Your task to perform on an android device: toggle sleep mode Image 0: 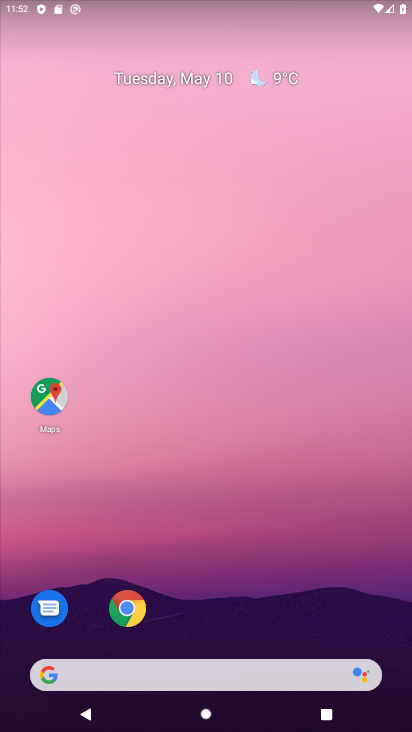
Step 0: drag from (292, 684) to (258, 291)
Your task to perform on an android device: toggle sleep mode Image 1: 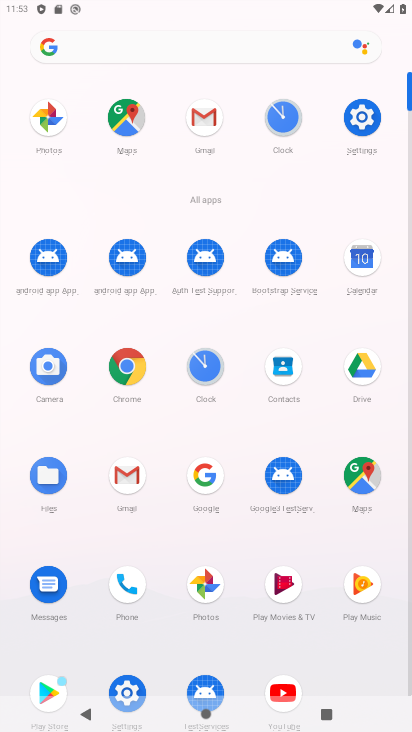
Step 1: click (361, 105)
Your task to perform on an android device: toggle sleep mode Image 2: 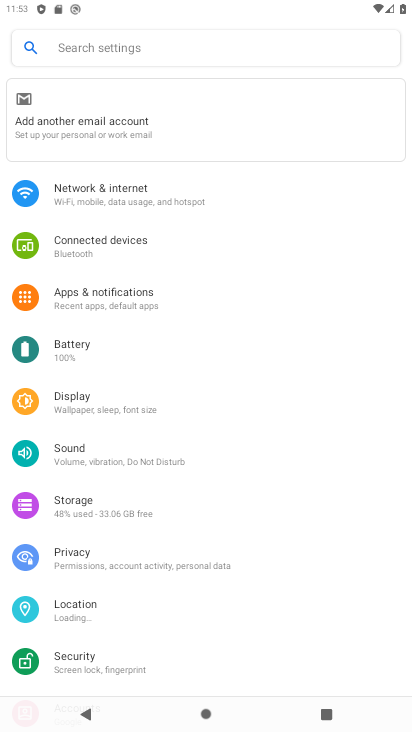
Step 2: drag from (295, 538) to (281, 375)
Your task to perform on an android device: toggle sleep mode Image 3: 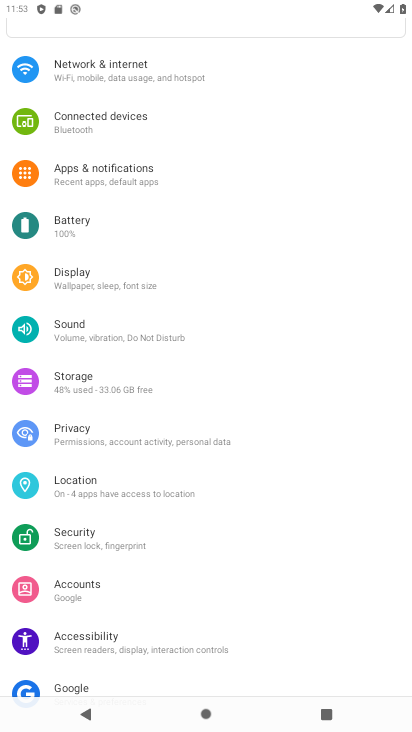
Step 3: click (129, 291)
Your task to perform on an android device: toggle sleep mode Image 4: 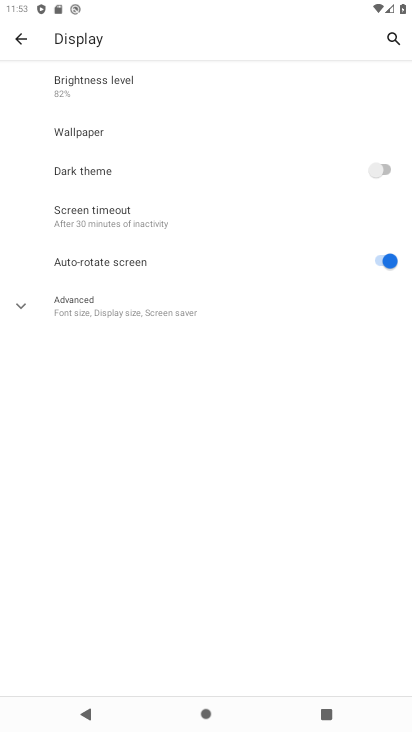
Step 4: click (136, 312)
Your task to perform on an android device: toggle sleep mode Image 5: 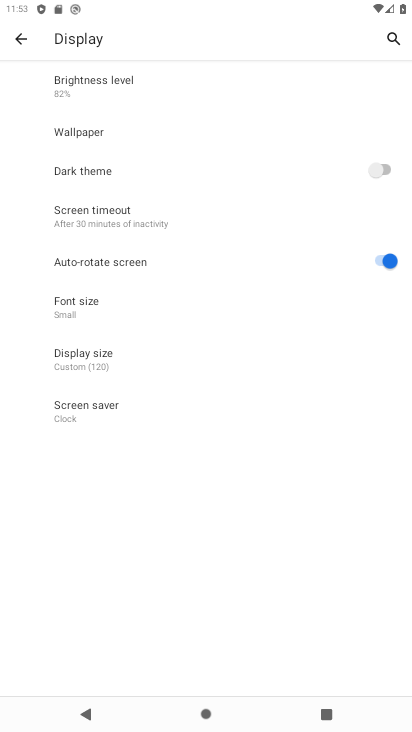
Step 5: task complete